Your task to perform on an android device: Open calendar and show me the third week of next month Image 0: 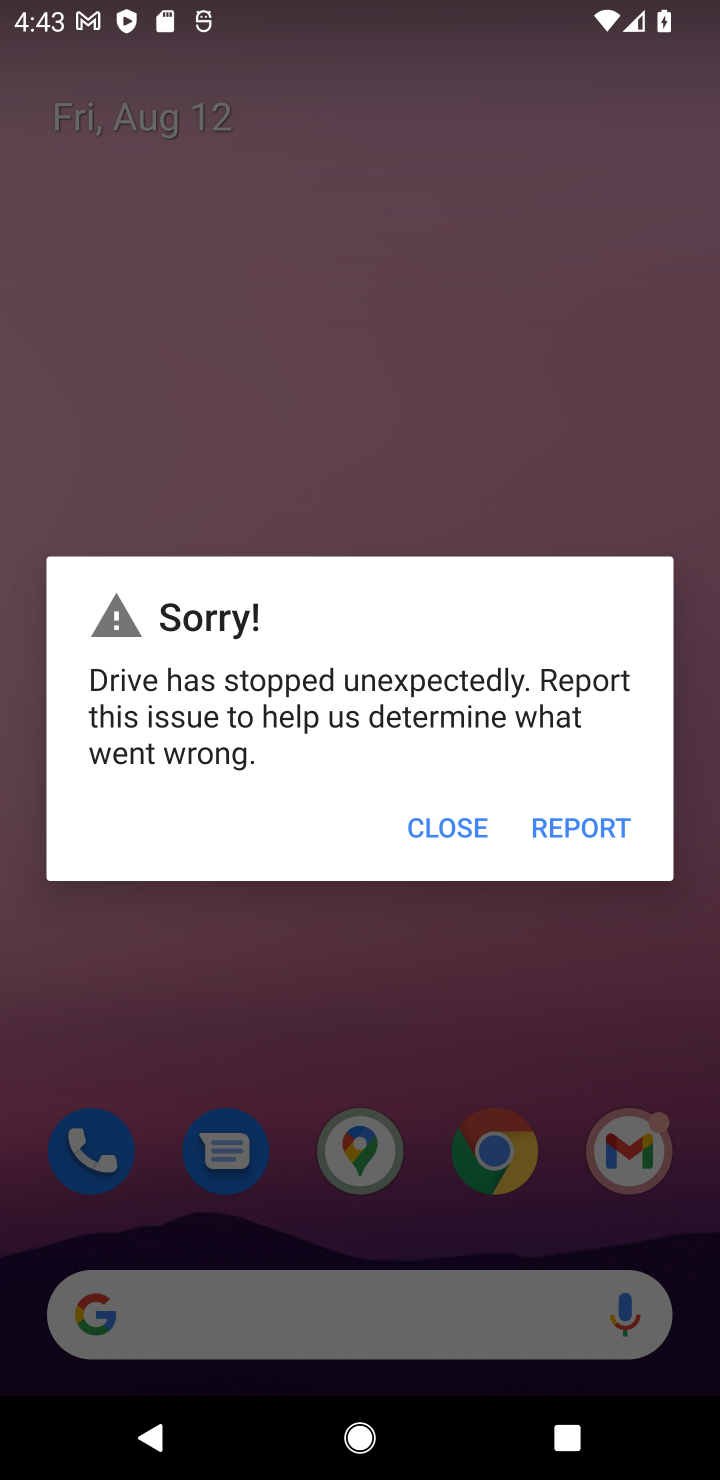
Step 0: press home button
Your task to perform on an android device: Open calendar and show me the third week of next month Image 1: 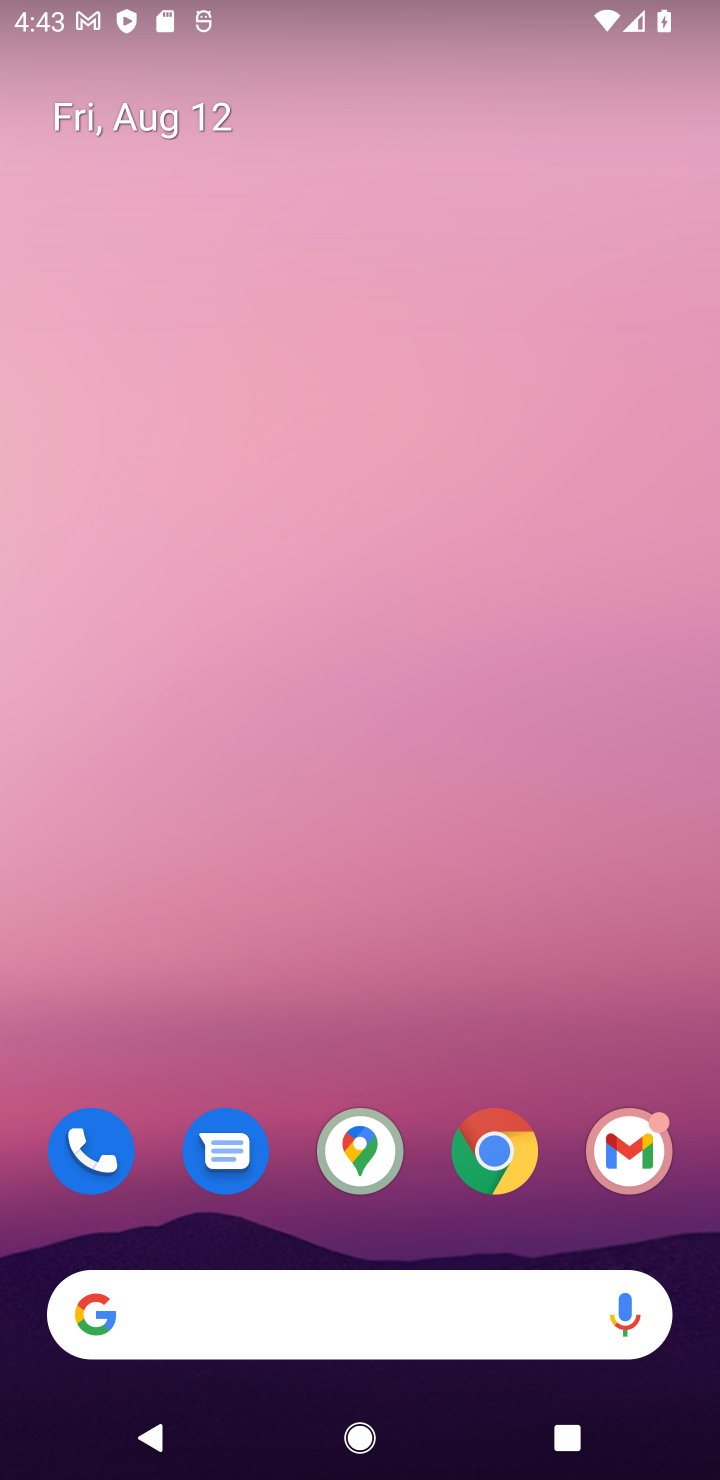
Step 1: drag from (274, 551) to (0, 880)
Your task to perform on an android device: Open calendar and show me the third week of next month Image 2: 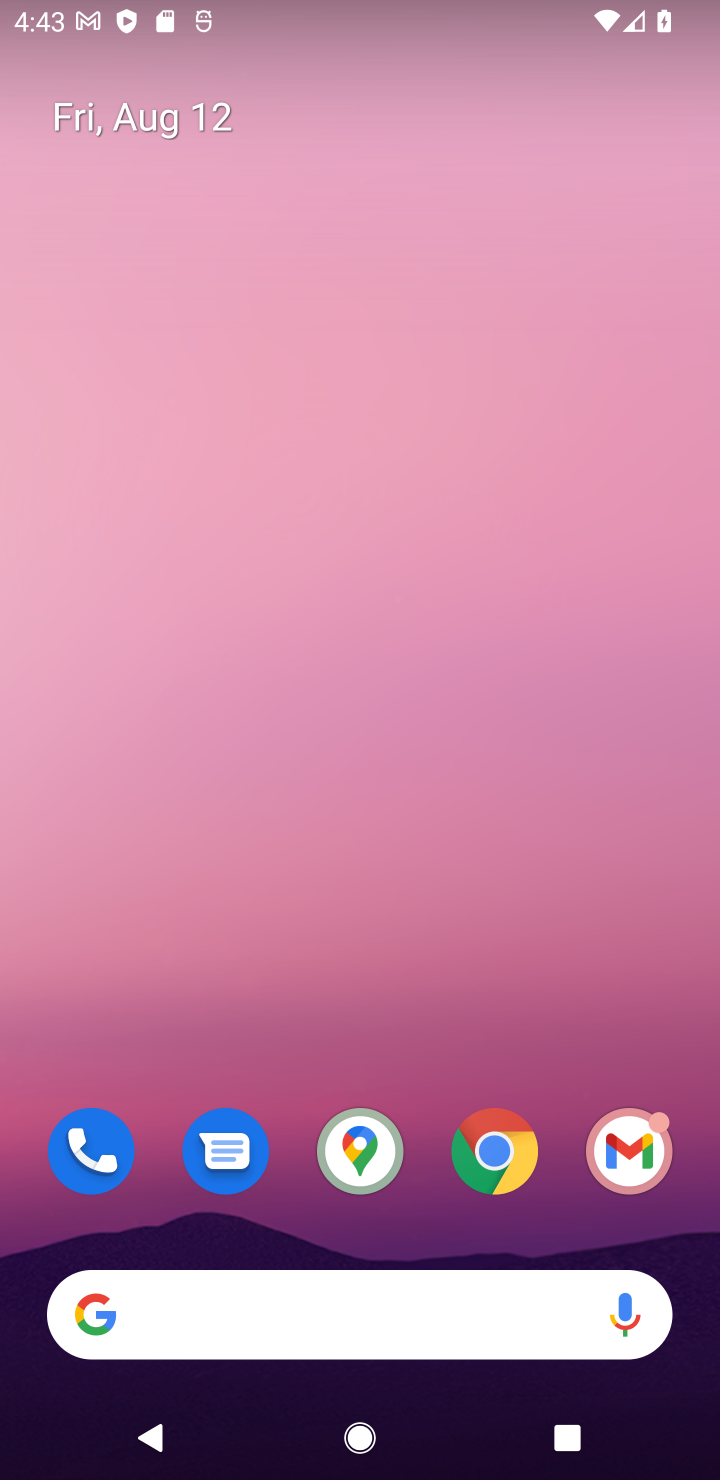
Step 2: drag from (552, 861) to (527, 91)
Your task to perform on an android device: Open calendar and show me the third week of next month Image 3: 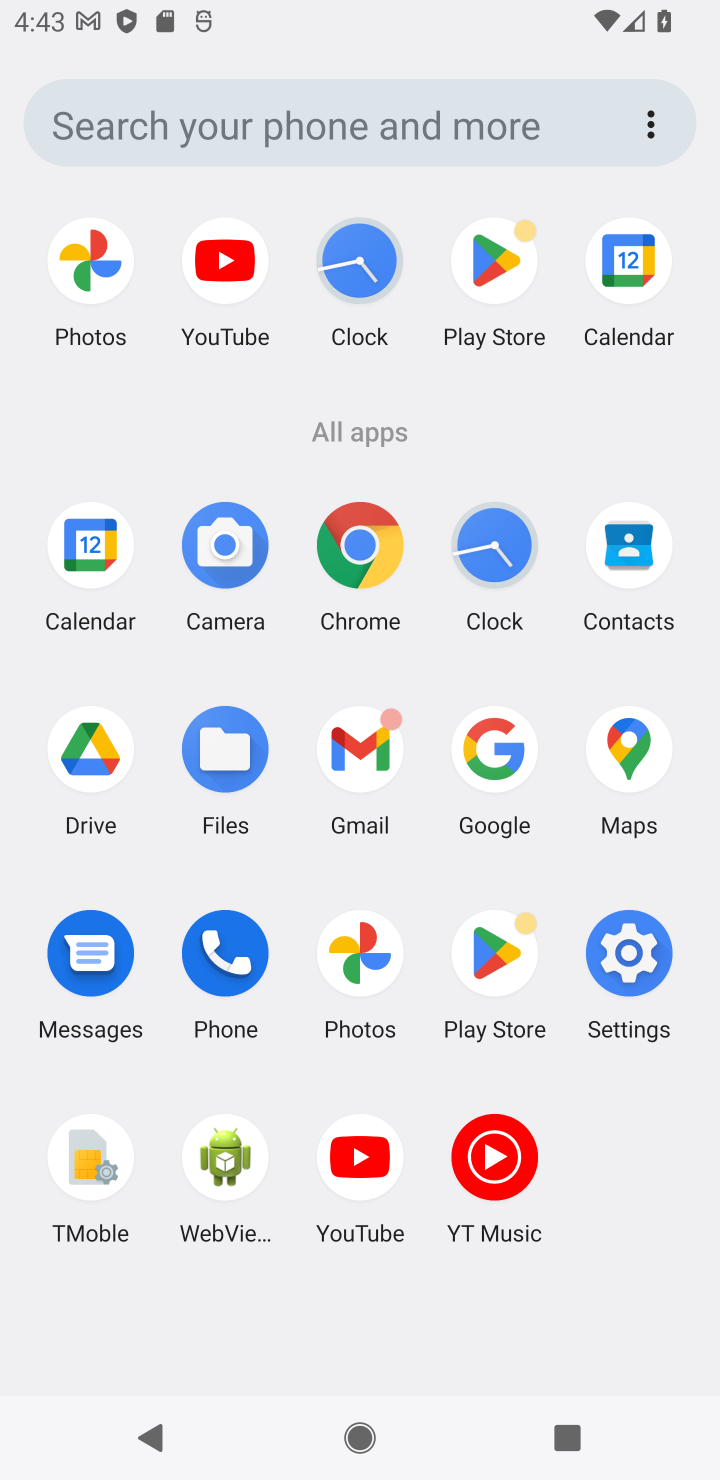
Step 3: click (638, 259)
Your task to perform on an android device: Open calendar and show me the third week of next month Image 4: 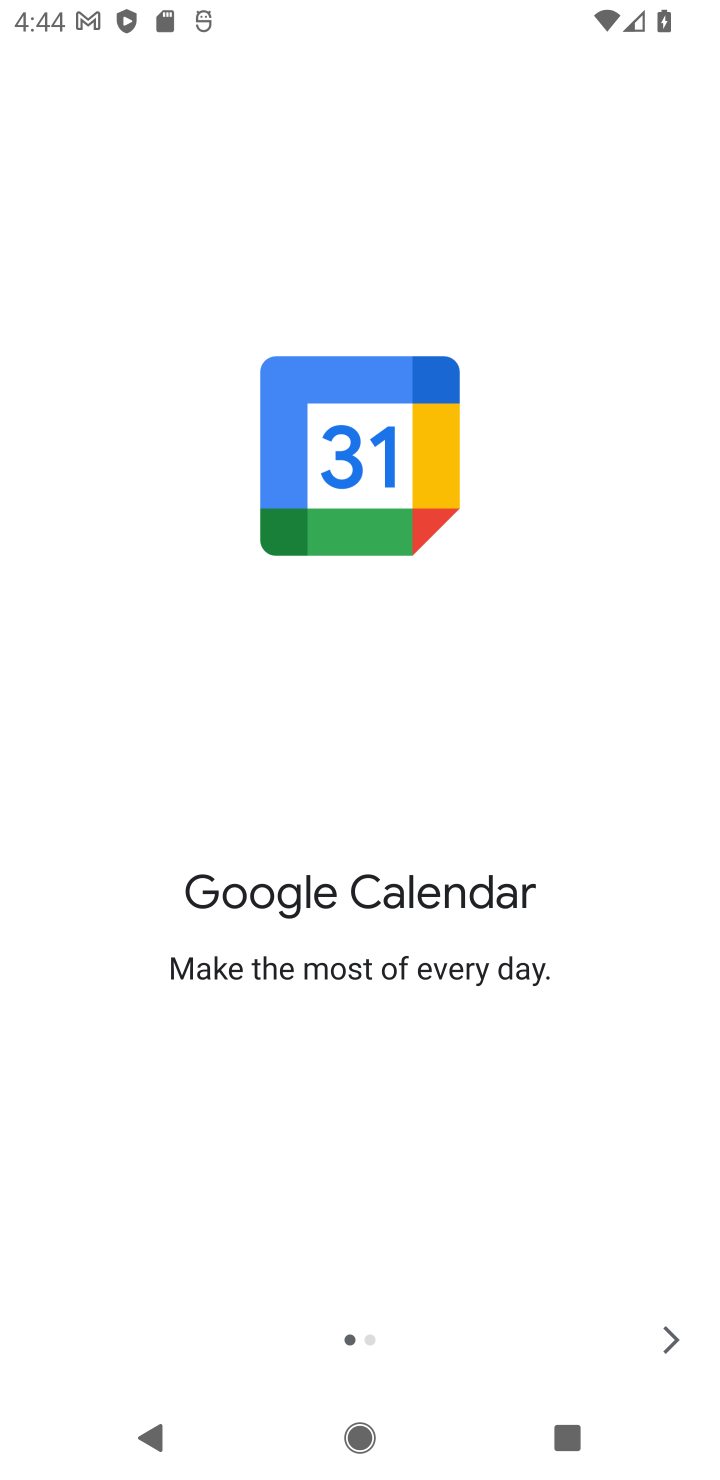
Step 4: click (675, 1339)
Your task to perform on an android device: Open calendar and show me the third week of next month Image 5: 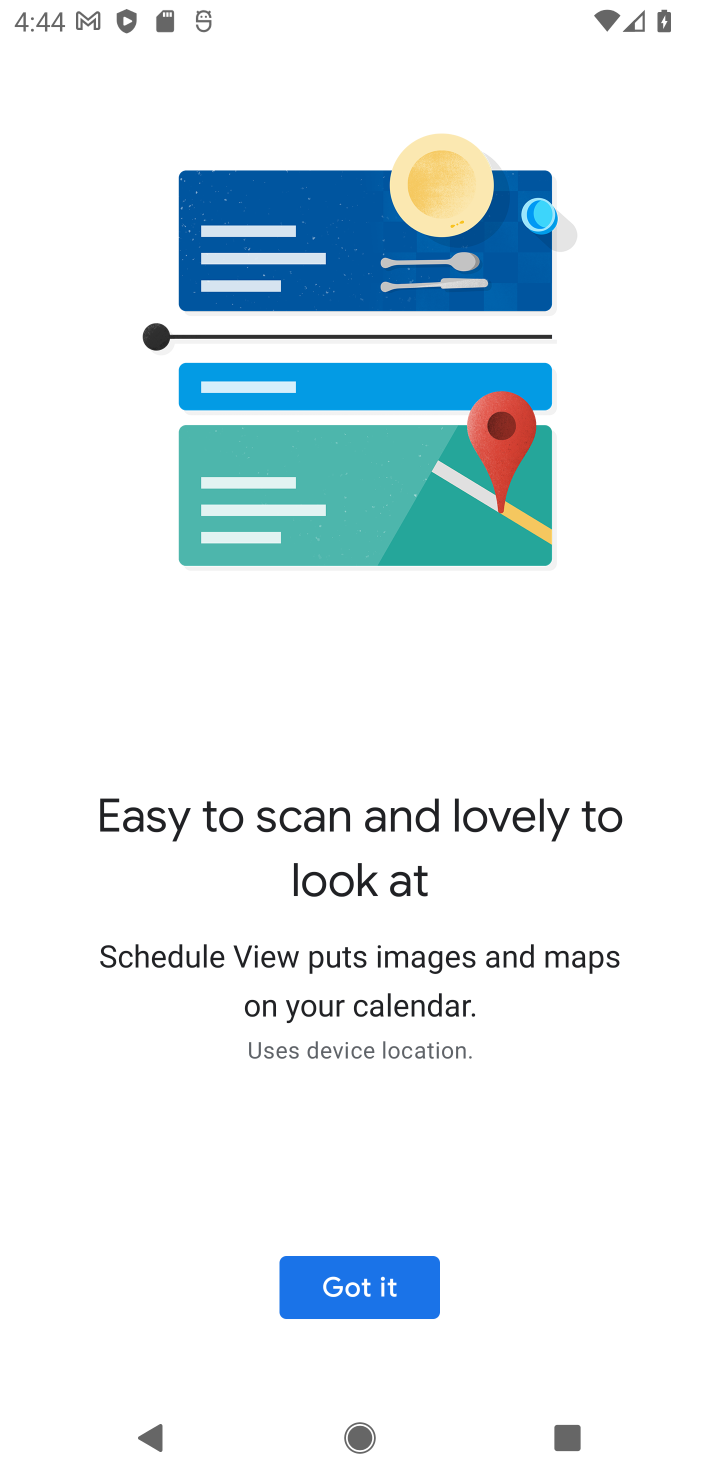
Step 5: click (679, 1327)
Your task to perform on an android device: Open calendar and show me the third week of next month Image 6: 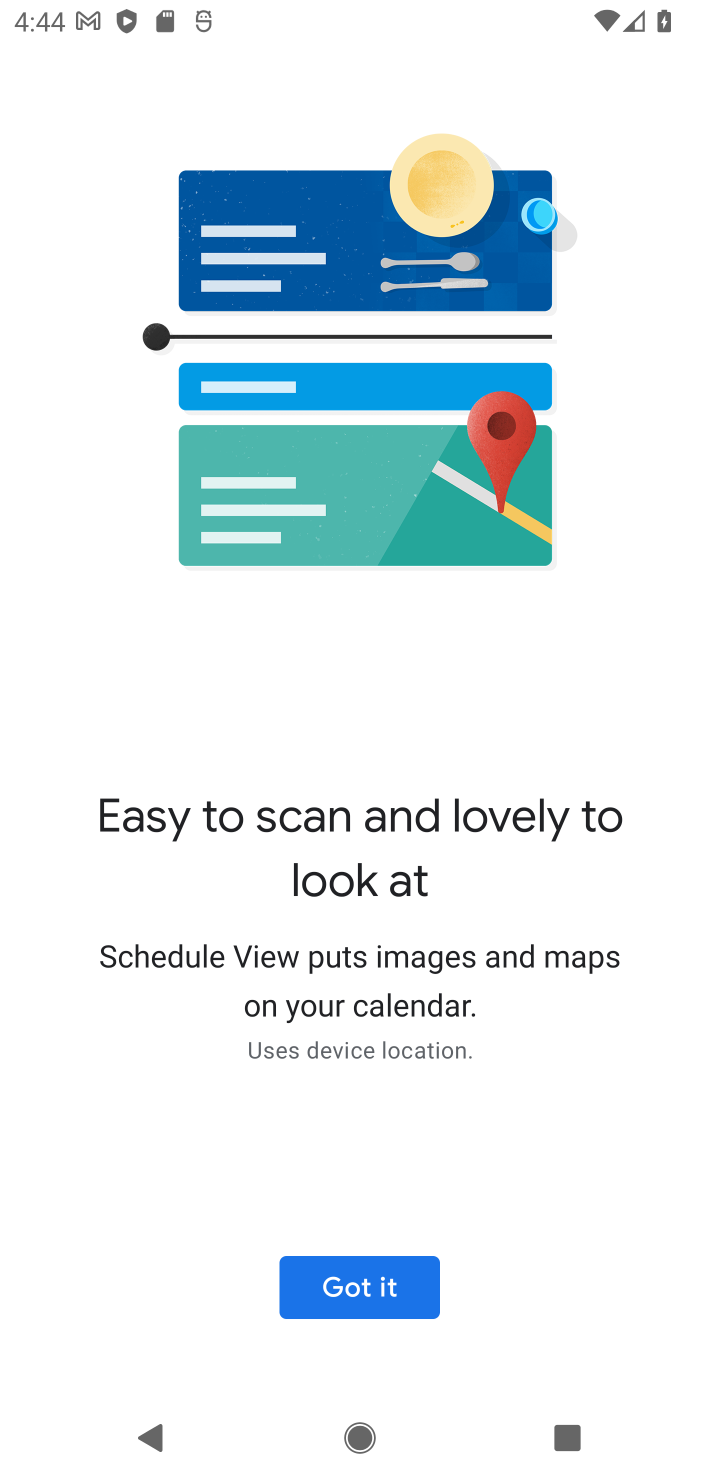
Step 6: click (355, 1290)
Your task to perform on an android device: Open calendar and show me the third week of next month Image 7: 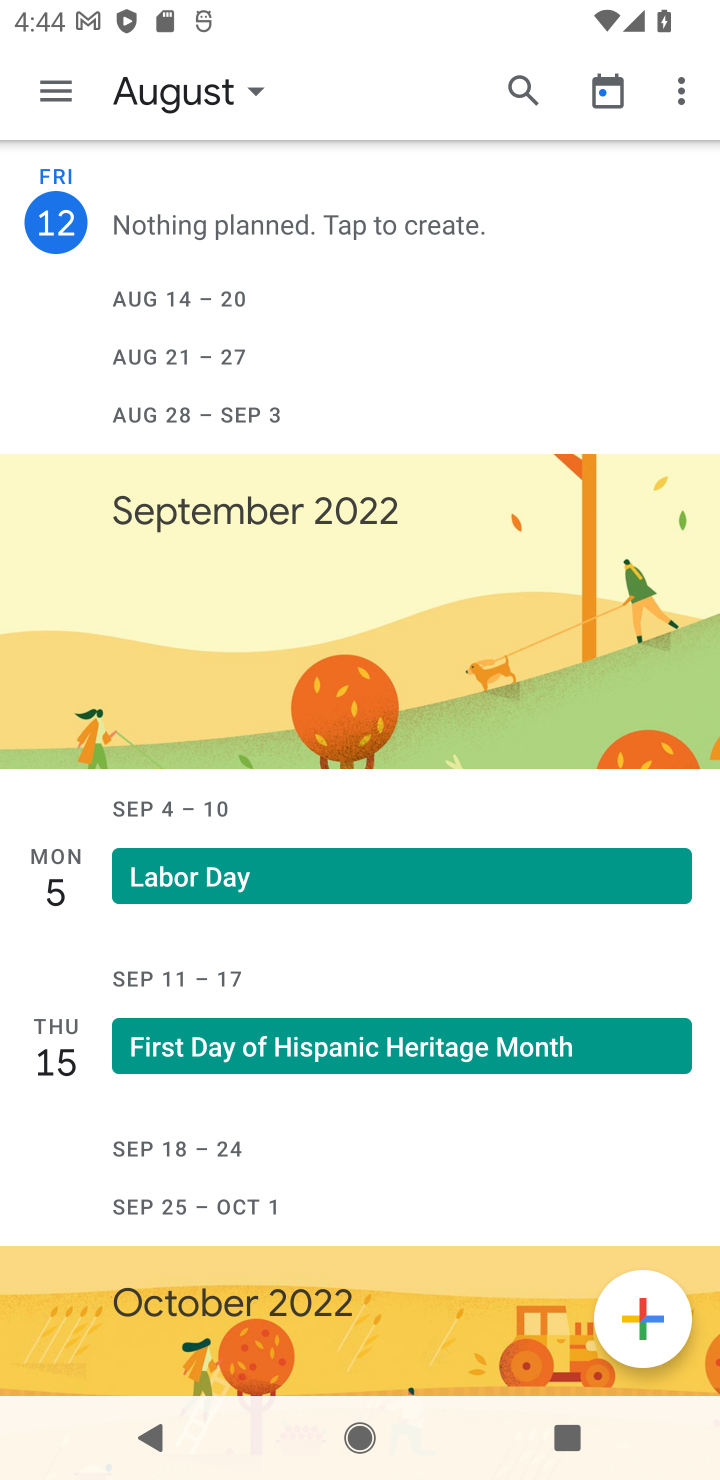
Step 7: click (218, 101)
Your task to perform on an android device: Open calendar and show me the third week of next month Image 8: 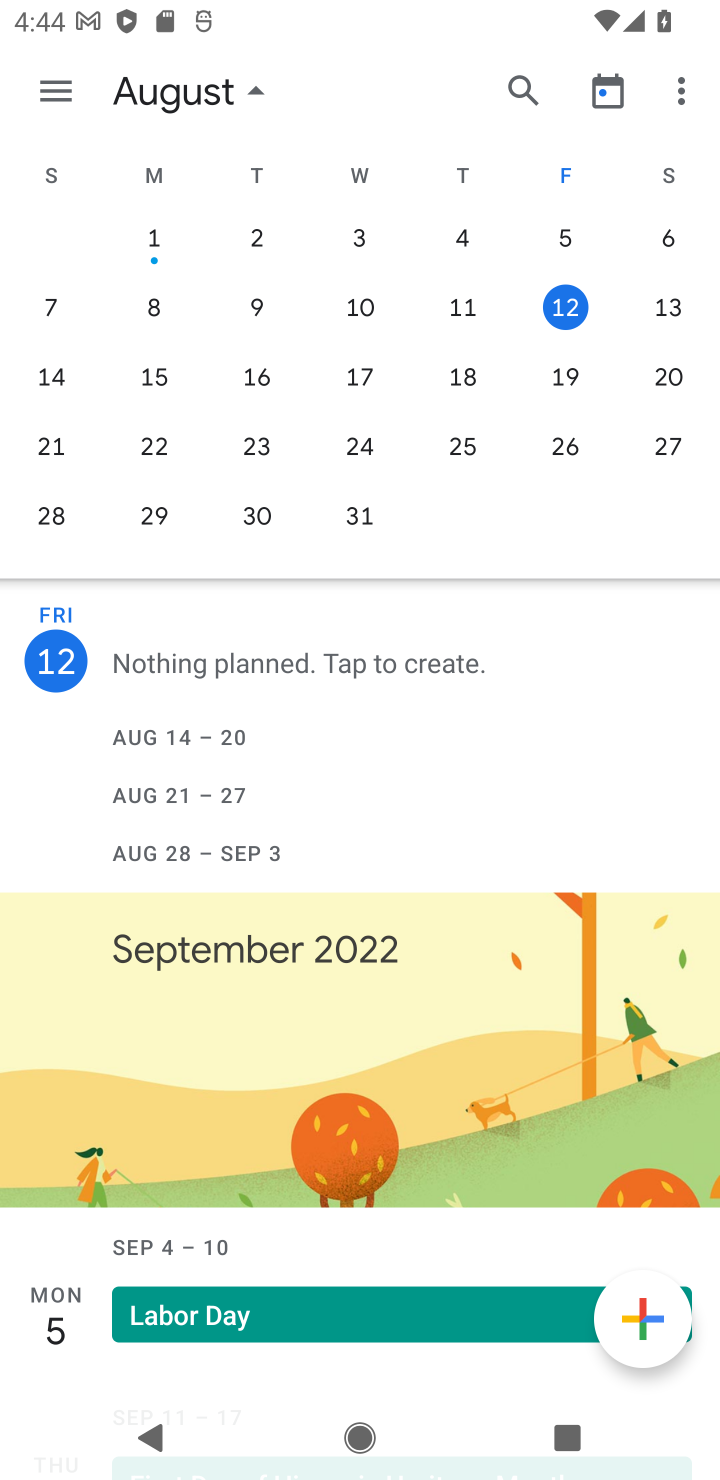
Step 8: drag from (655, 502) to (104, 436)
Your task to perform on an android device: Open calendar and show me the third week of next month Image 9: 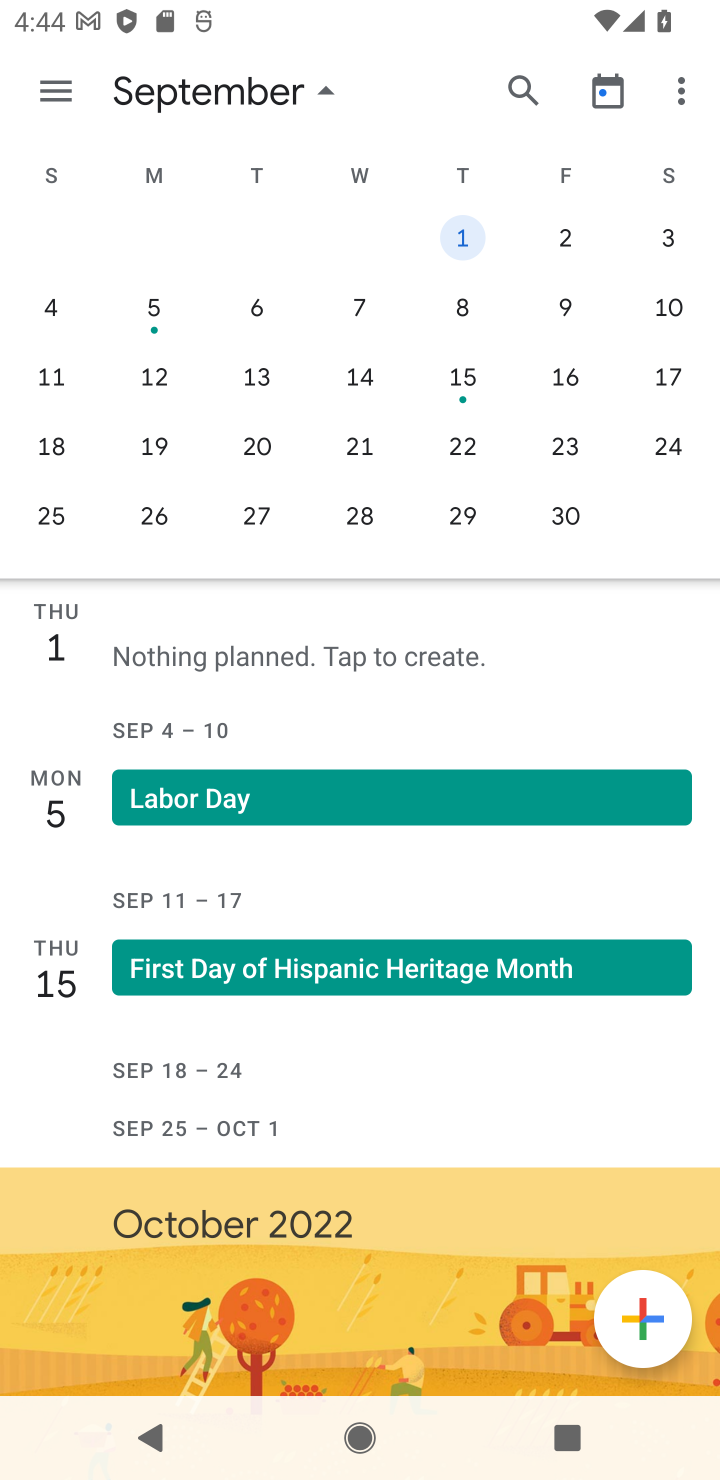
Step 9: click (667, 364)
Your task to perform on an android device: Open calendar and show me the third week of next month Image 10: 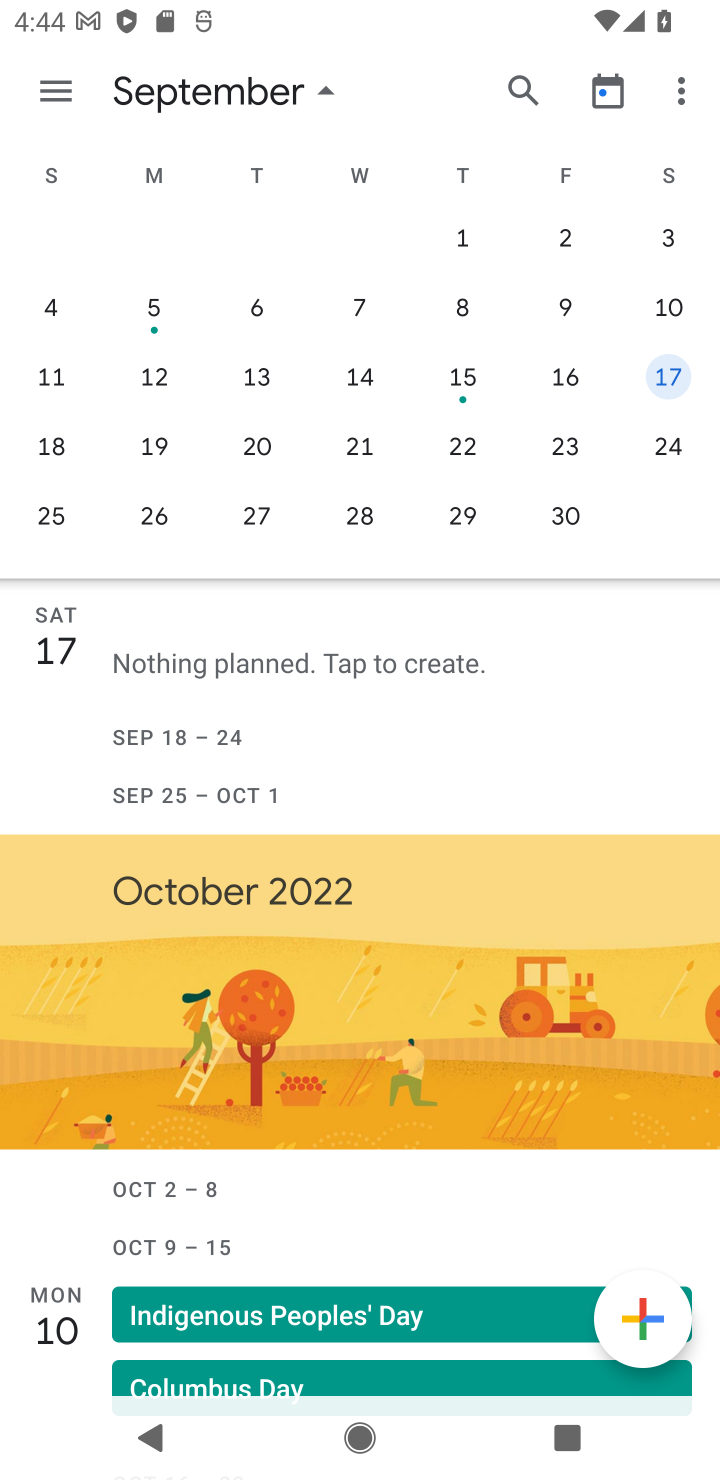
Step 10: click (39, 78)
Your task to perform on an android device: Open calendar and show me the third week of next month Image 11: 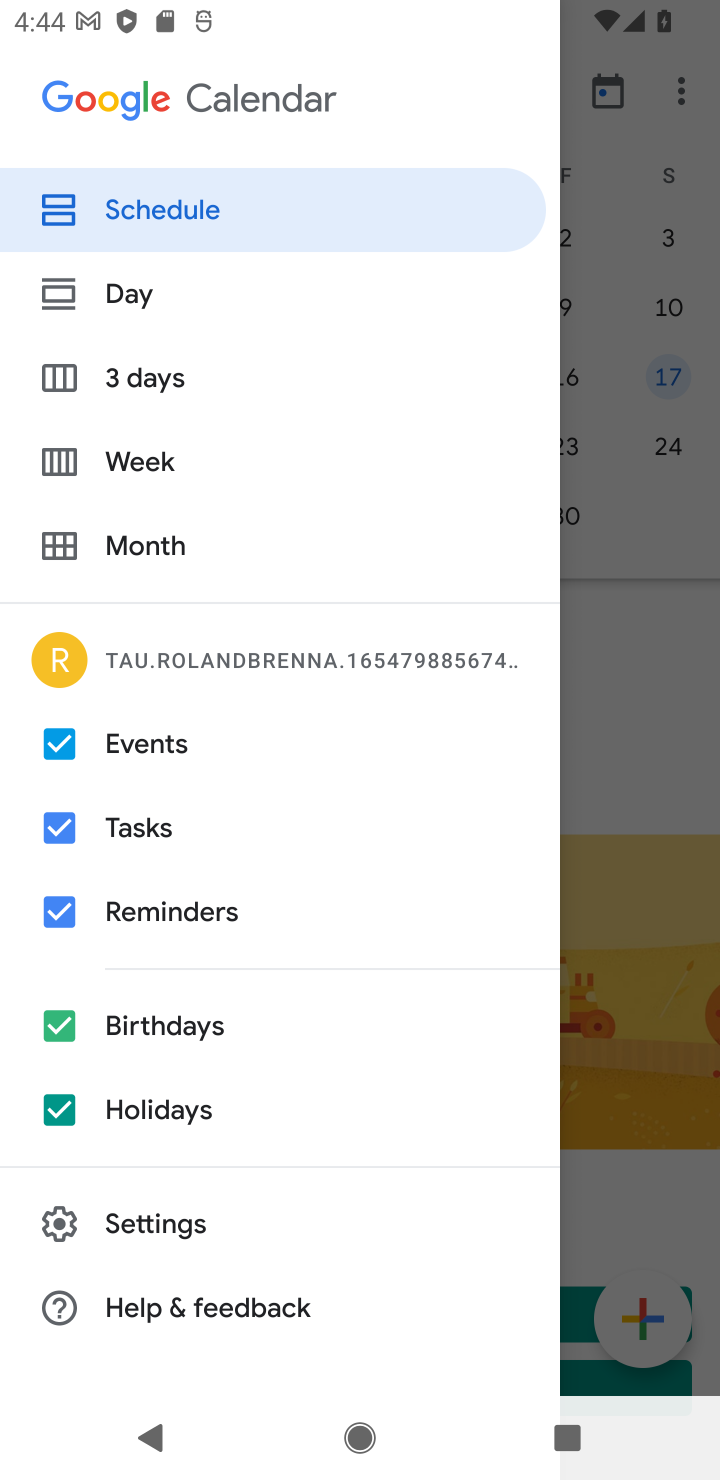
Step 11: click (135, 445)
Your task to perform on an android device: Open calendar and show me the third week of next month Image 12: 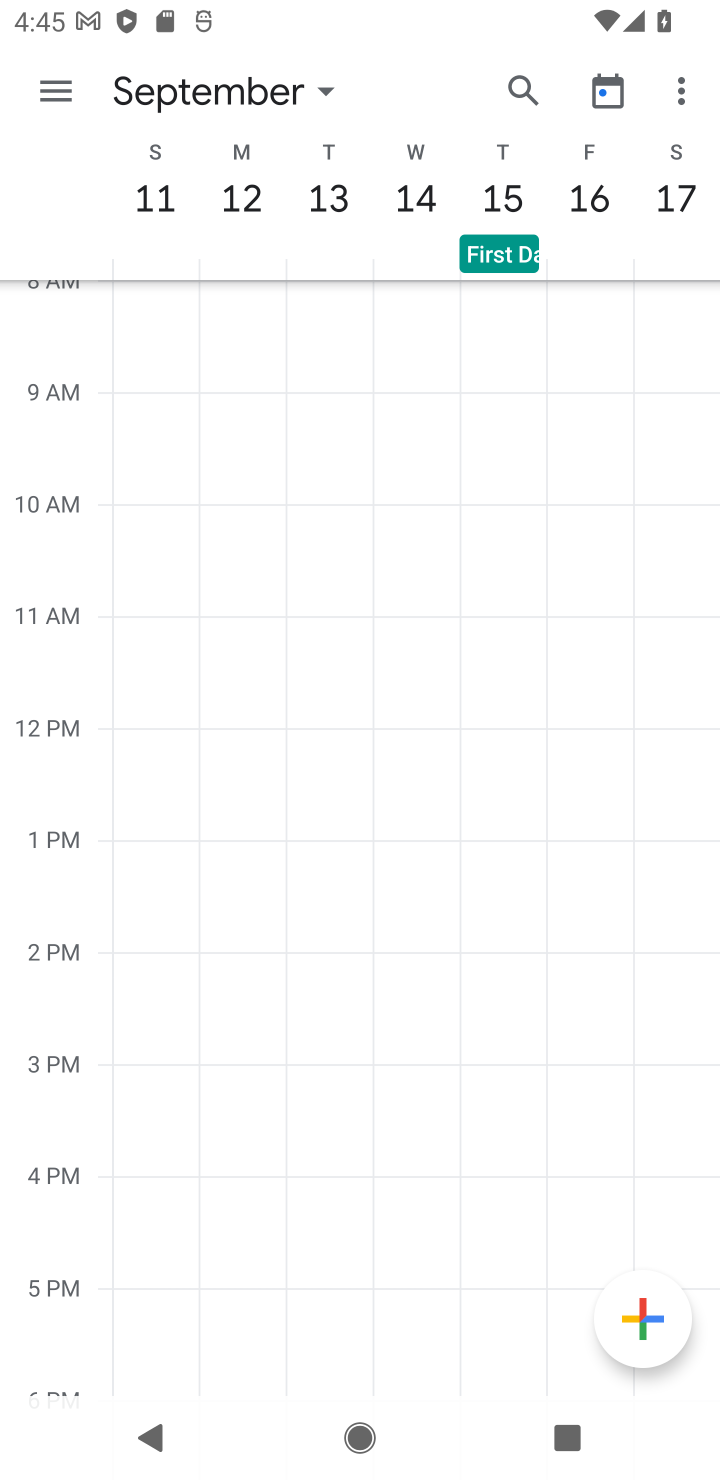
Step 12: task complete